Your task to perform on an android device: Show me the alarms in the clock app Image 0: 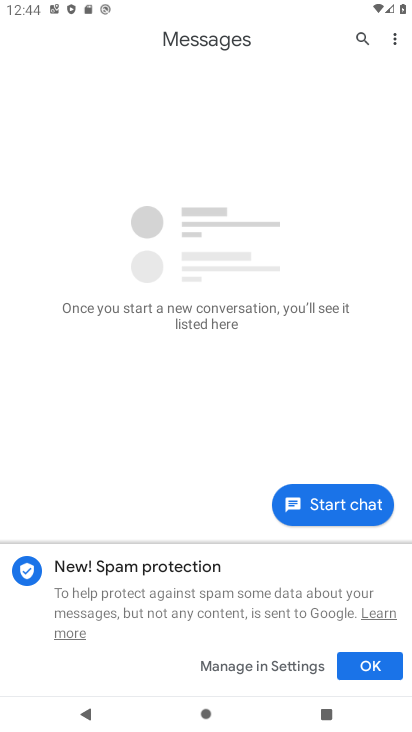
Step 0: press home button
Your task to perform on an android device: Show me the alarms in the clock app Image 1: 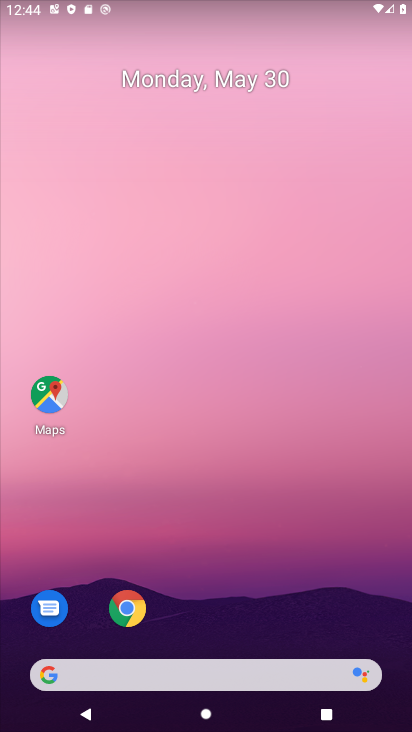
Step 1: drag from (248, 588) to (201, 53)
Your task to perform on an android device: Show me the alarms in the clock app Image 2: 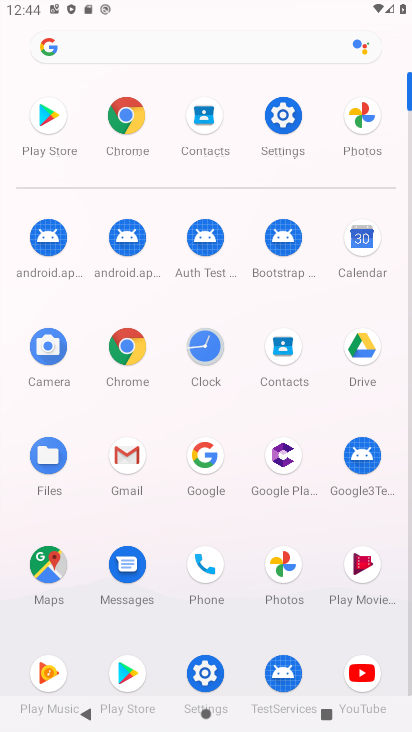
Step 2: click (202, 347)
Your task to perform on an android device: Show me the alarms in the clock app Image 3: 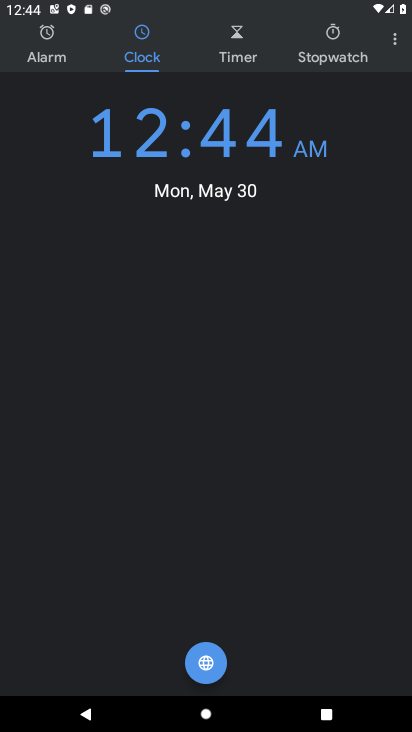
Step 3: click (59, 39)
Your task to perform on an android device: Show me the alarms in the clock app Image 4: 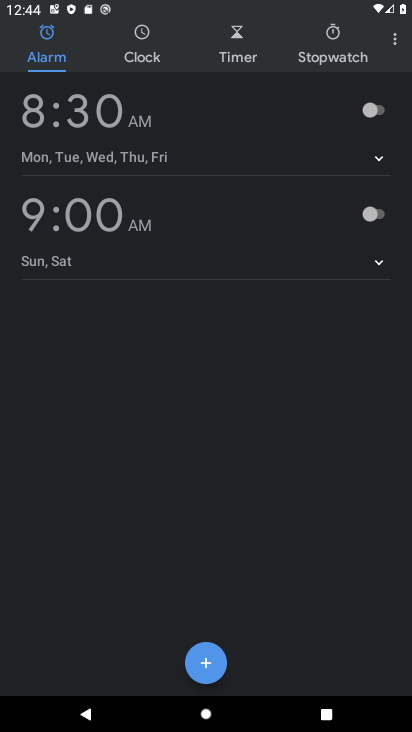
Step 4: task complete